Your task to perform on an android device: toggle notification dots Image 0: 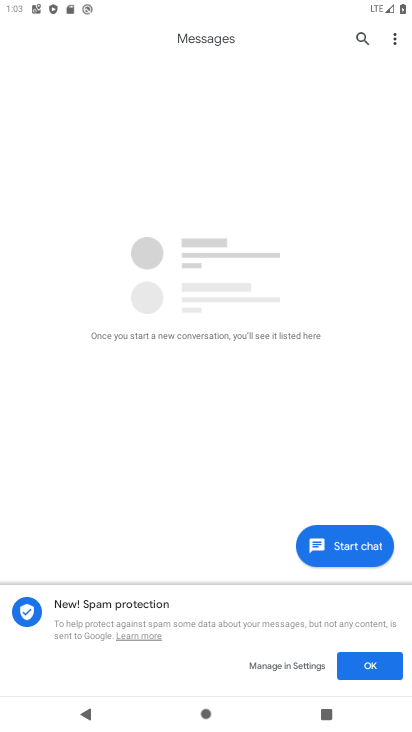
Step 0: press home button
Your task to perform on an android device: toggle notification dots Image 1: 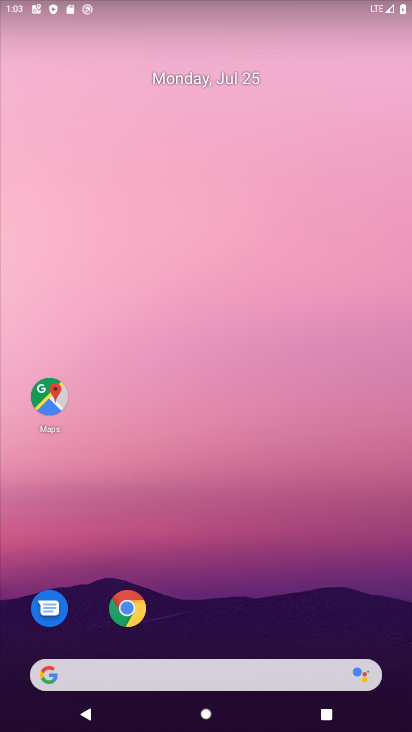
Step 1: drag from (221, 626) to (212, 9)
Your task to perform on an android device: toggle notification dots Image 2: 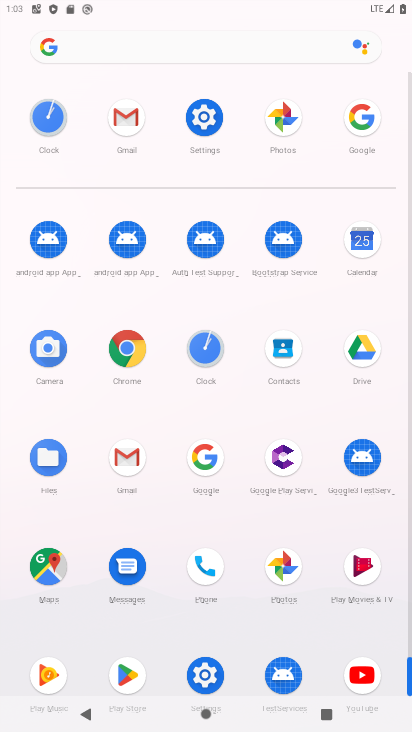
Step 2: click (206, 124)
Your task to perform on an android device: toggle notification dots Image 3: 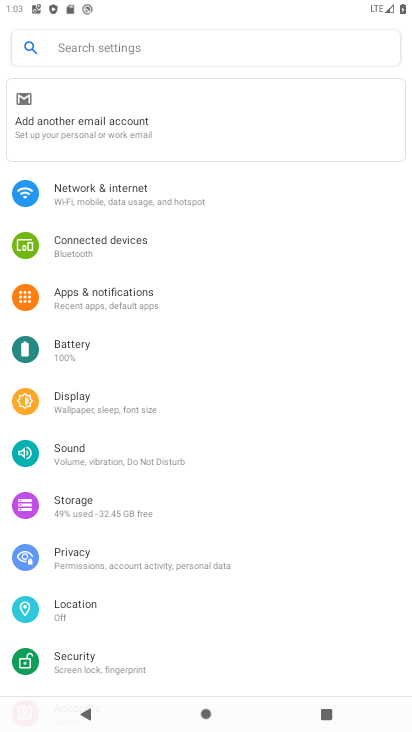
Step 3: click (95, 292)
Your task to perform on an android device: toggle notification dots Image 4: 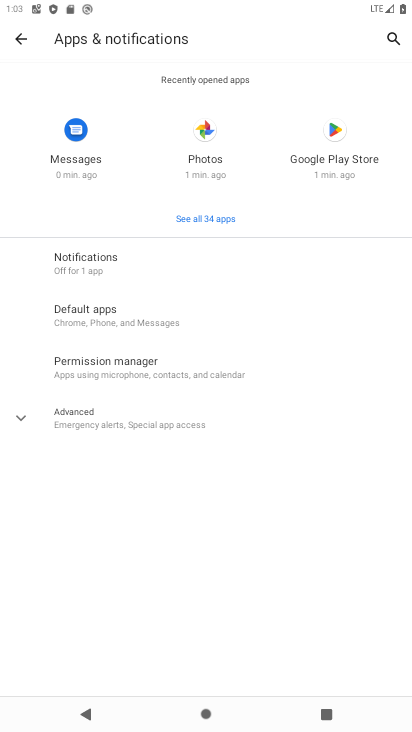
Step 4: click (72, 278)
Your task to perform on an android device: toggle notification dots Image 5: 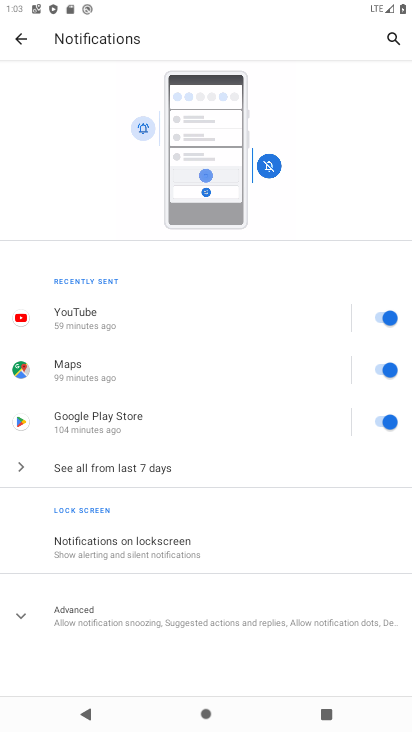
Step 5: click (8, 626)
Your task to perform on an android device: toggle notification dots Image 6: 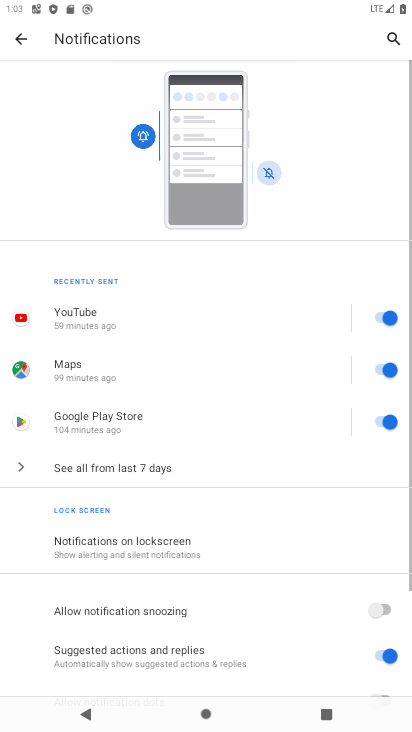
Step 6: drag from (83, 609) to (64, 250)
Your task to perform on an android device: toggle notification dots Image 7: 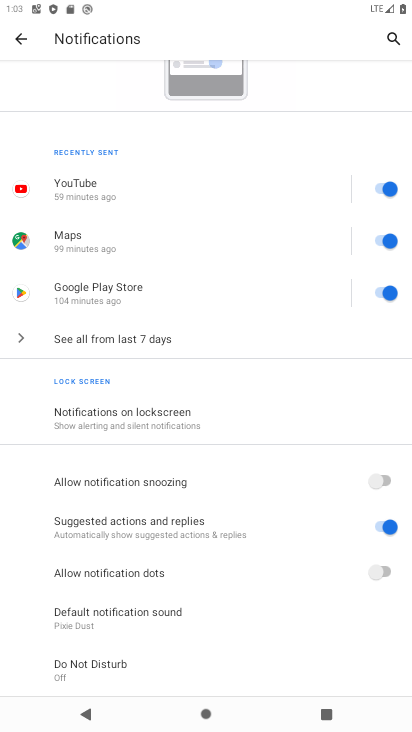
Step 7: click (385, 571)
Your task to perform on an android device: toggle notification dots Image 8: 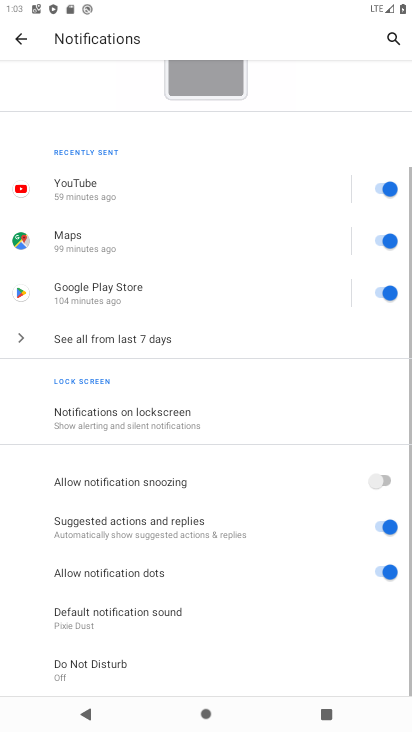
Step 8: task complete